Your task to perform on an android device: toggle pop-ups in chrome Image 0: 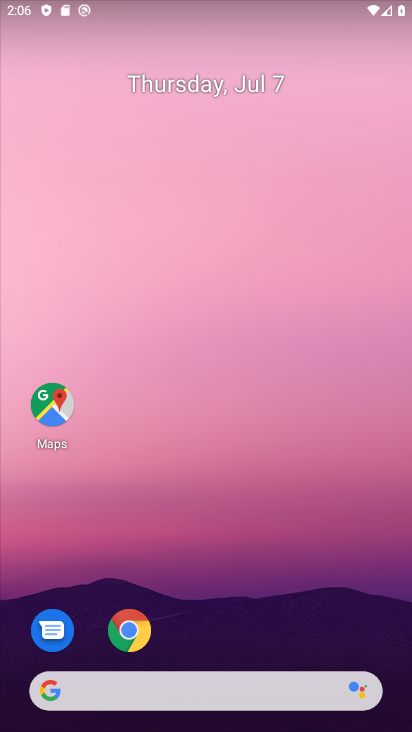
Step 0: click (132, 627)
Your task to perform on an android device: toggle pop-ups in chrome Image 1: 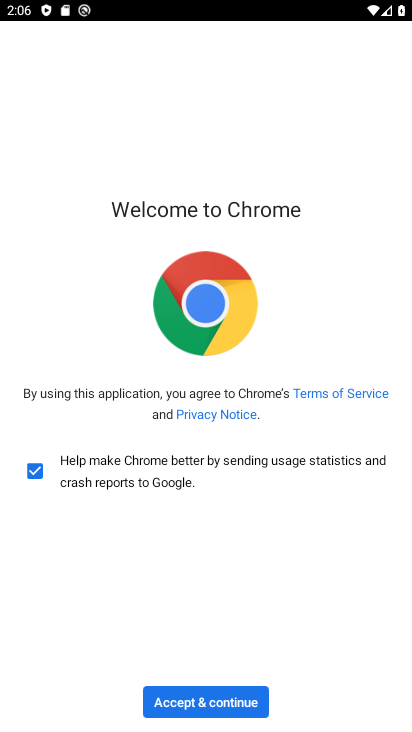
Step 1: click (226, 712)
Your task to perform on an android device: toggle pop-ups in chrome Image 2: 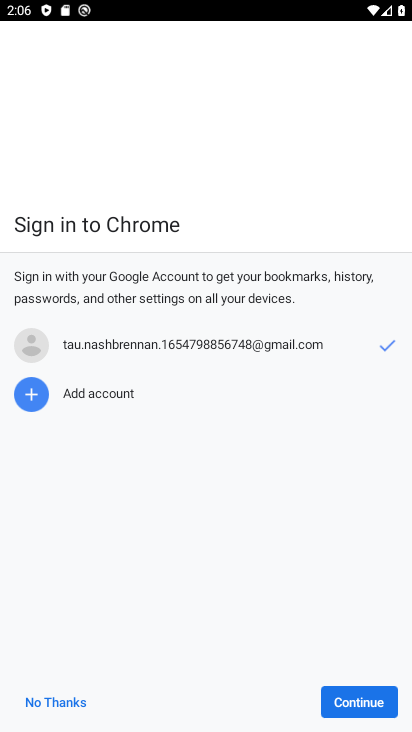
Step 2: click (344, 704)
Your task to perform on an android device: toggle pop-ups in chrome Image 3: 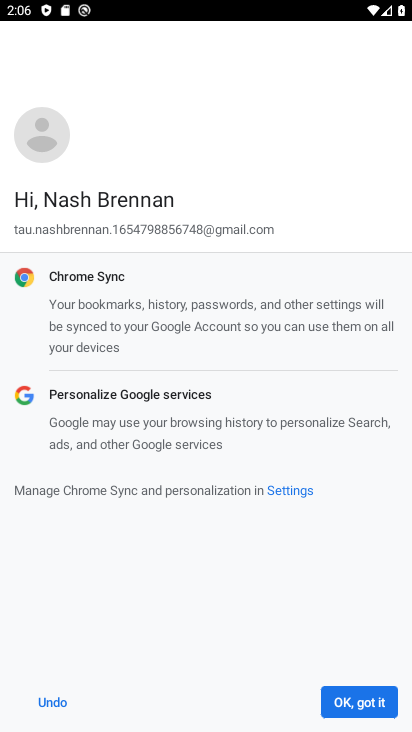
Step 3: click (344, 704)
Your task to perform on an android device: toggle pop-ups in chrome Image 4: 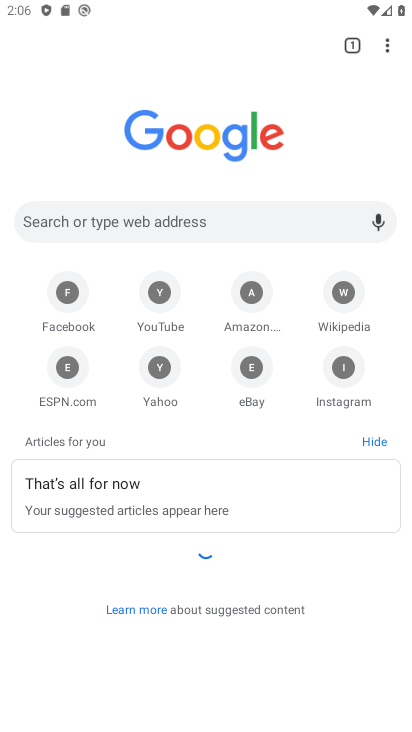
Step 4: click (389, 48)
Your task to perform on an android device: toggle pop-ups in chrome Image 5: 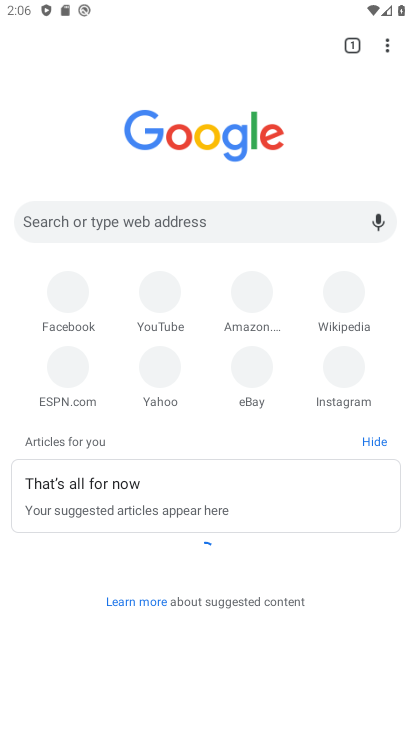
Step 5: click (389, 45)
Your task to perform on an android device: toggle pop-ups in chrome Image 6: 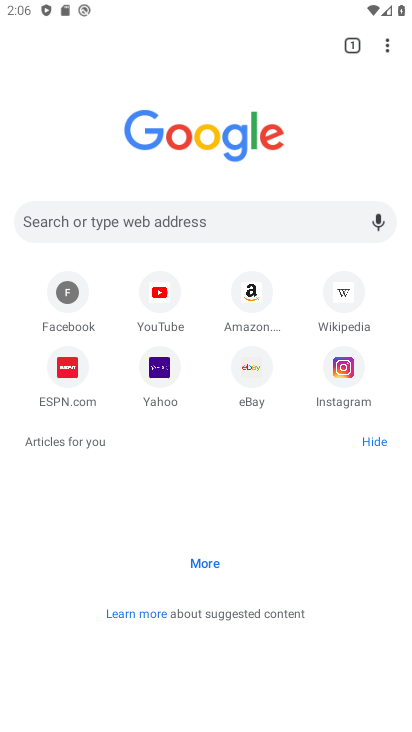
Step 6: click (385, 41)
Your task to perform on an android device: toggle pop-ups in chrome Image 7: 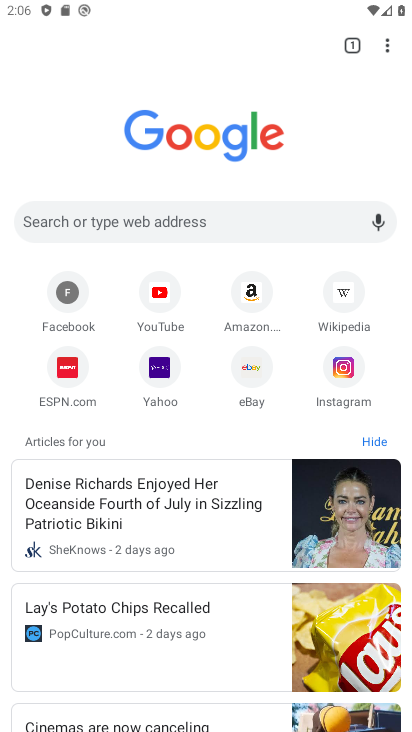
Step 7: click (382, 48)
Your task to perform on an android device: toggle pop-ups in chrome Image 8: 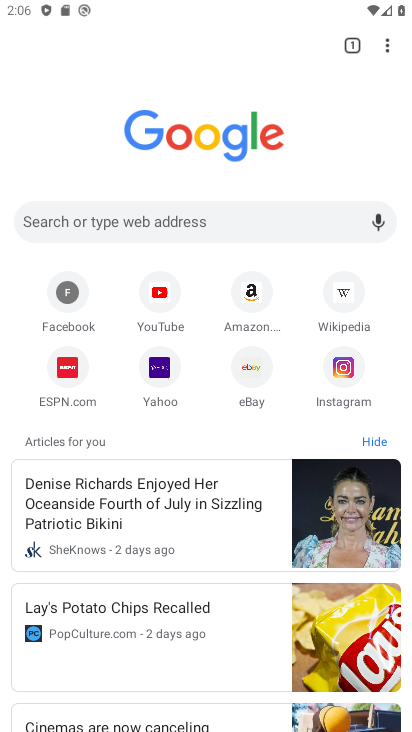
Step 8: click (382, 48)
Your task to perform on an android device: toggle pop-ups in chrome Image 9: 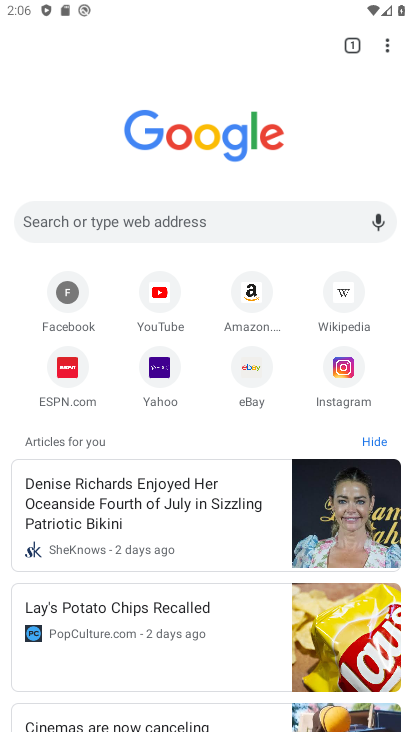
Step 9: click (385, 49)
Your task to perform on an android device: toggle pop-ups in chrome Image 10: 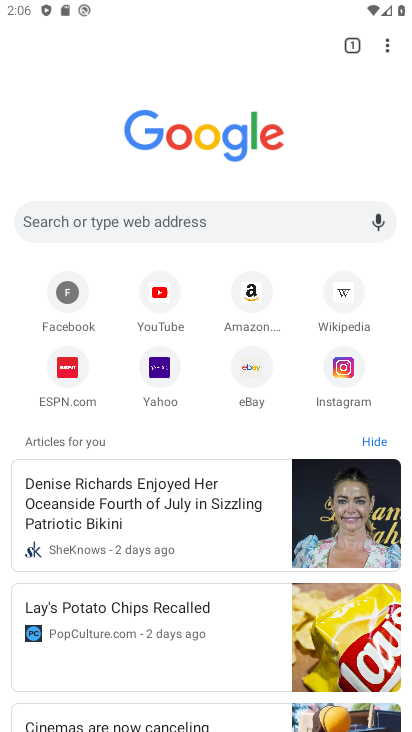
Step 10: click (385, 49)
Your task to perform on an android device: toggle pop-ups in chrome Image 11: 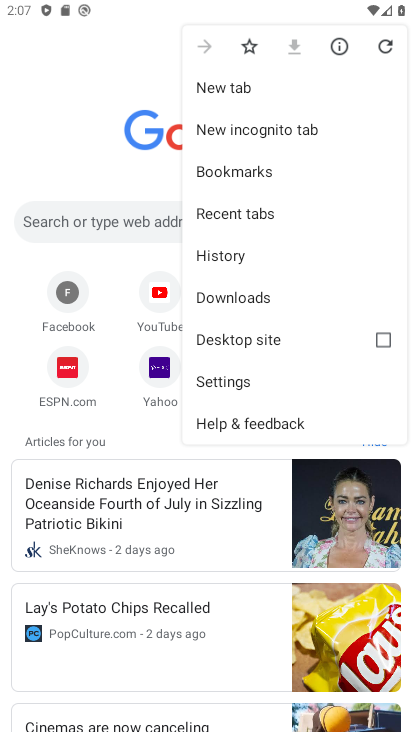
Step 11: click (219, 379)
Your task to perform on an android device: toggle pop-ups in chrome Image 12: 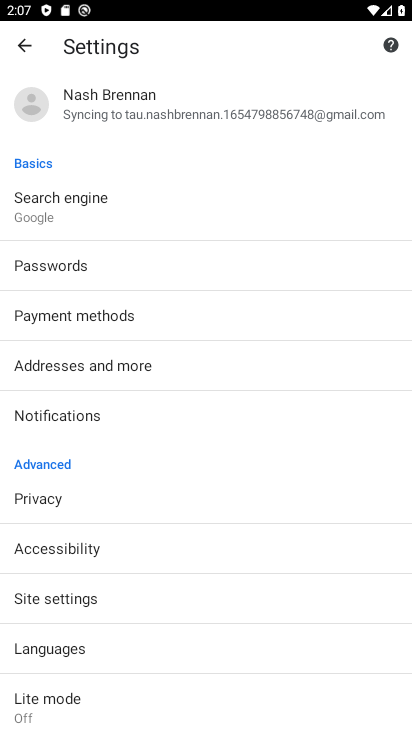
Step 12: click (65, 599)
Your task to perform on an android device: toggle pop-ups in chrome Image 13: 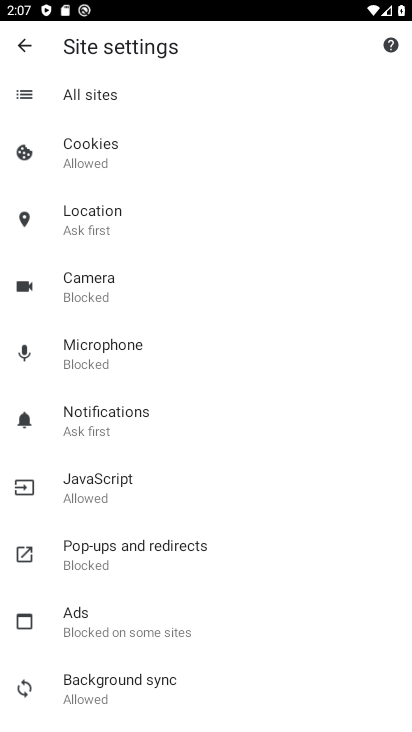
Step 13: click (130, 551)
Your task to perform on an android device: toggle pop-ups in chrome Image 14: 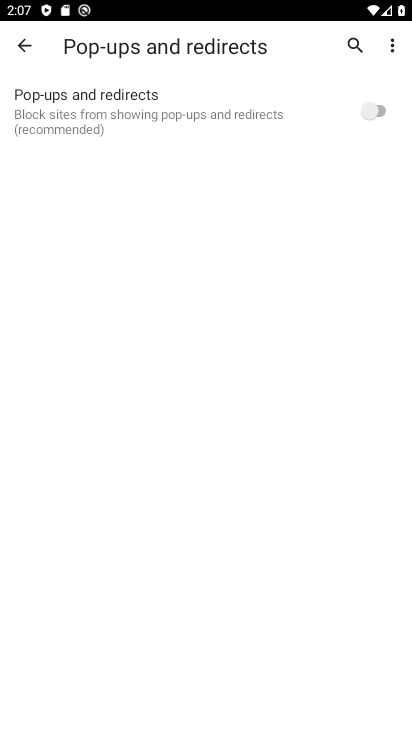
Step 14: click (370, 104)
Your task to perform on an android device: toggle pop-ups in chrome Image 15: 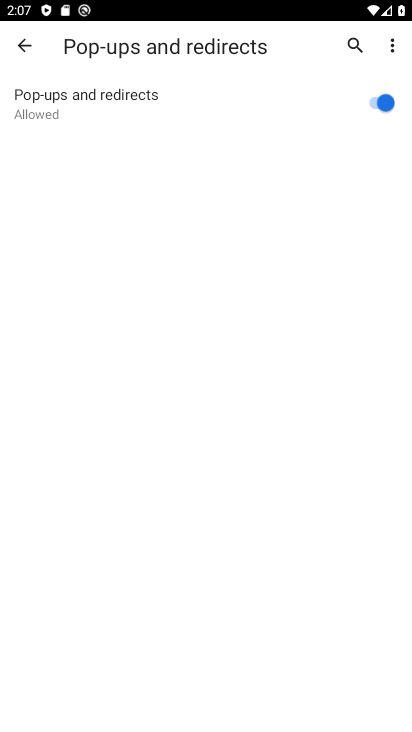
Step 15: task complete